Your task to perform on an android device: turn notification dots off Image 0: 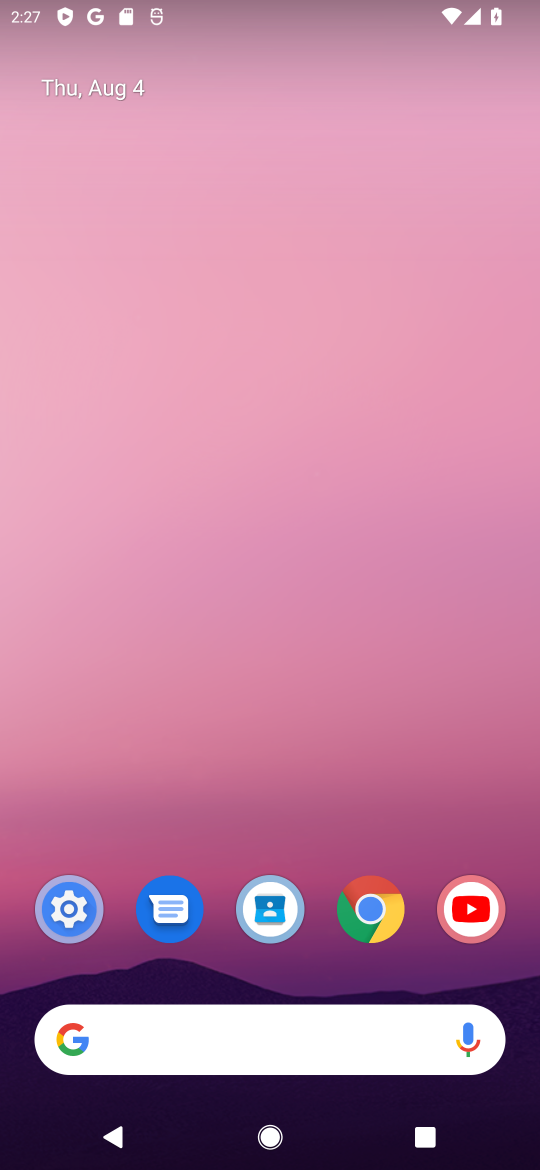
Step 0: drag from (276, 1014) to (459, 332)
Your task to perform on an android device: turn notification dots off Image 1: 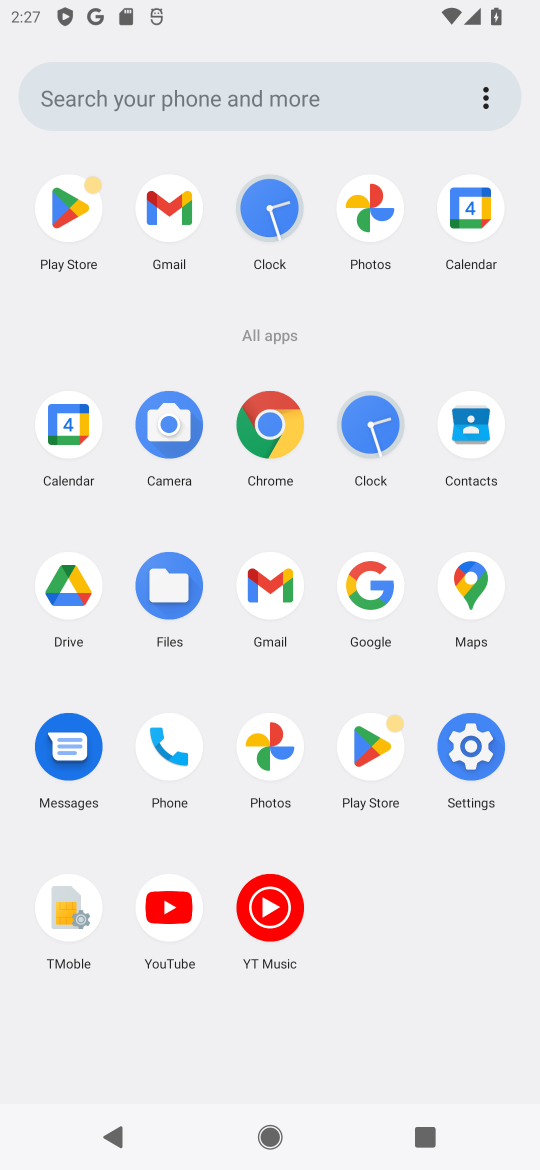
Step 1: click (475, 740)
Your task to perform on an android device: turn notification dots off Image 2: 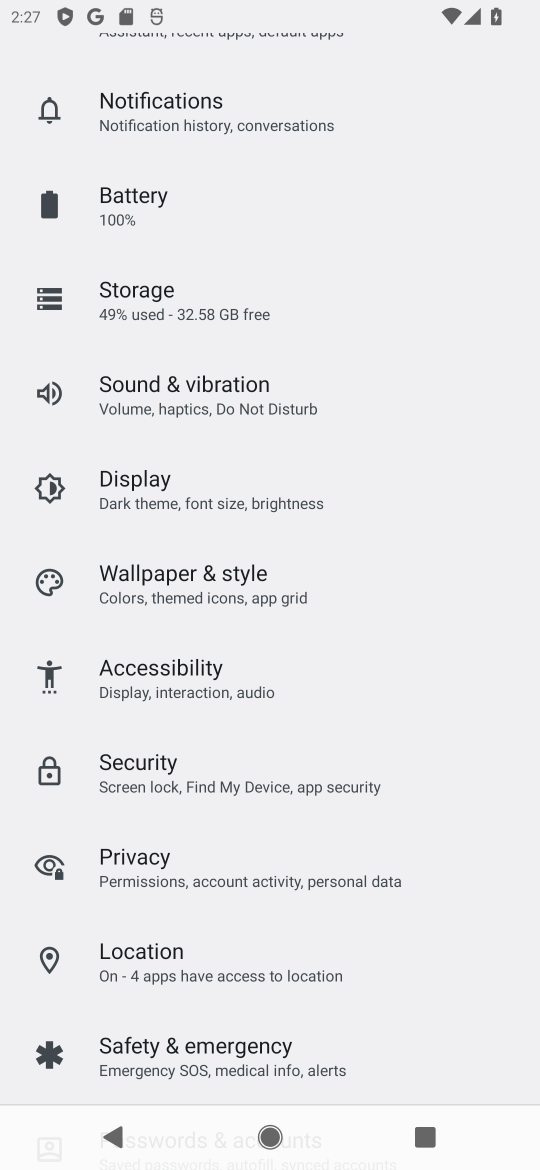
Step 2: drag from (419, 234) to (390, 595)
Your task to perform on an android device: turn notification dots off Image 3: 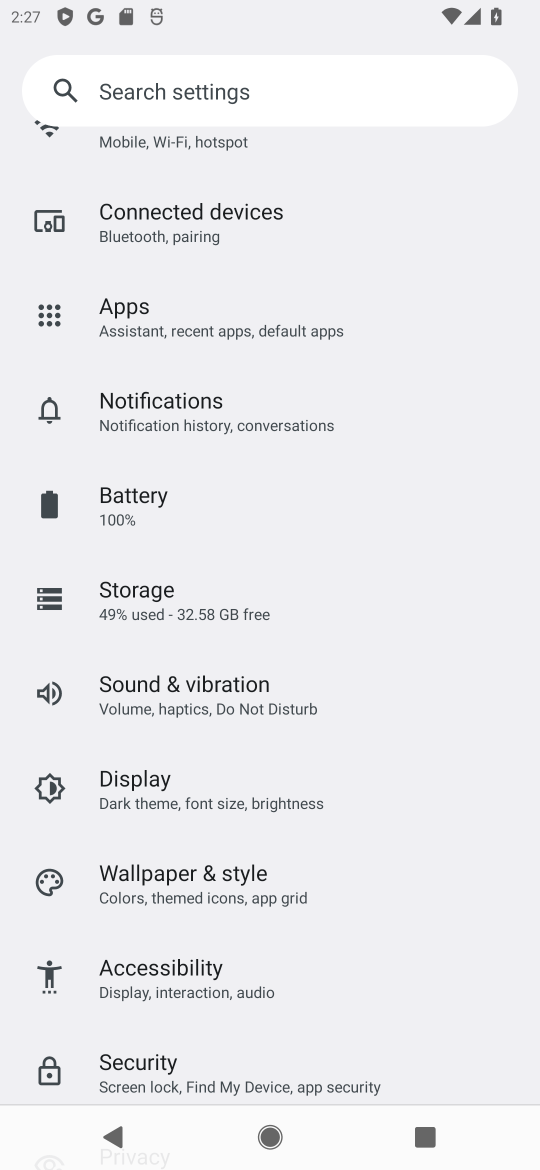
Step 3: click (176, 408)
Your task to perform on an android device: turn notification dots off Image 4: 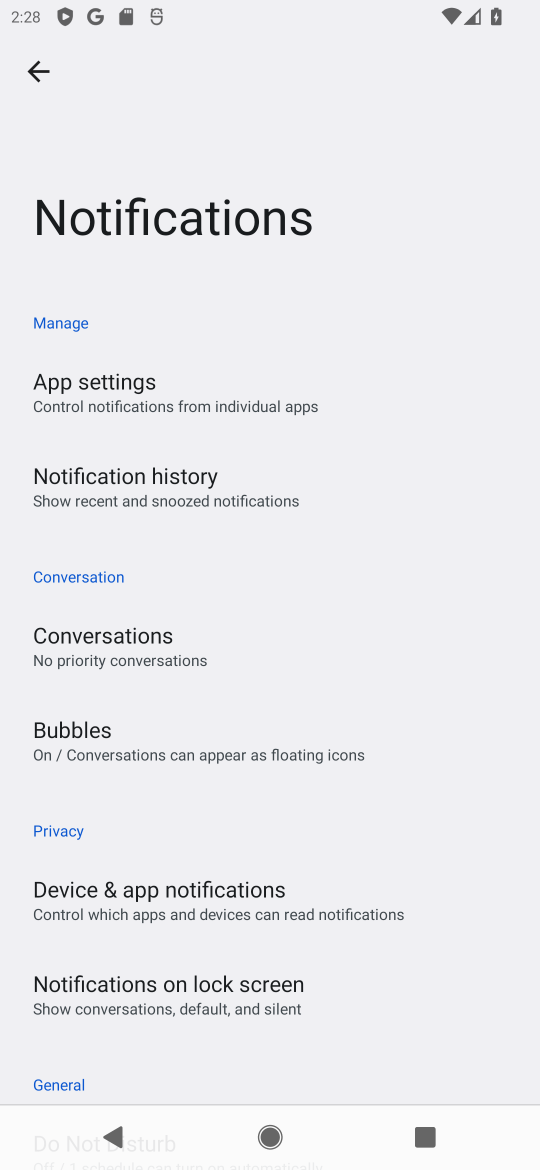
Step 4: drag from (365, 944) to (459, 615)
Your task to perform on an android device: turn notification dots off Image 5: 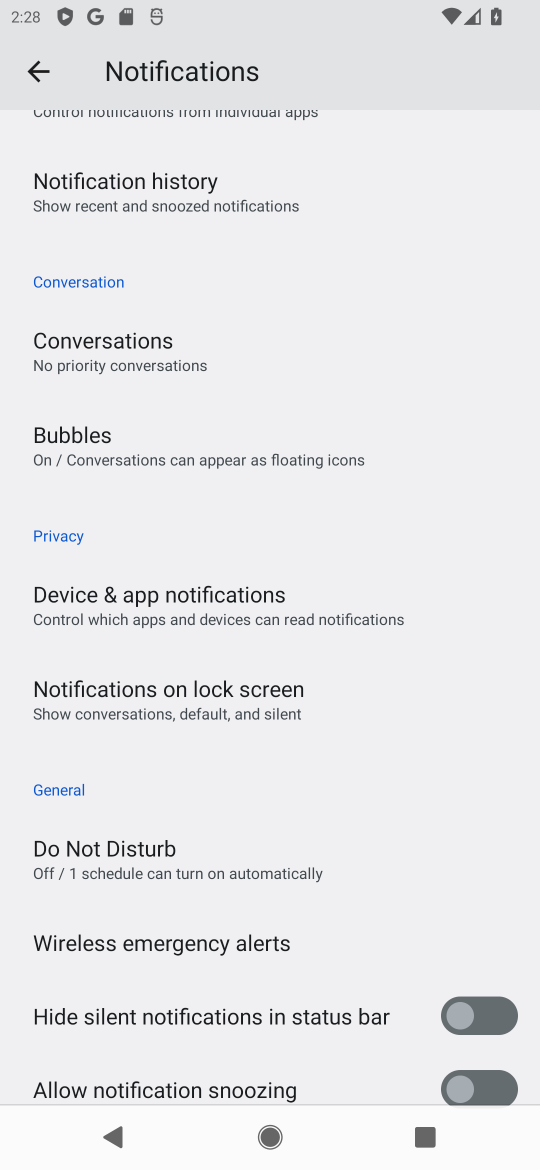
Step 5: drag from (380, 821) to (504, 413)
Your task to perform on an android device: turn notification dots off Image 6: 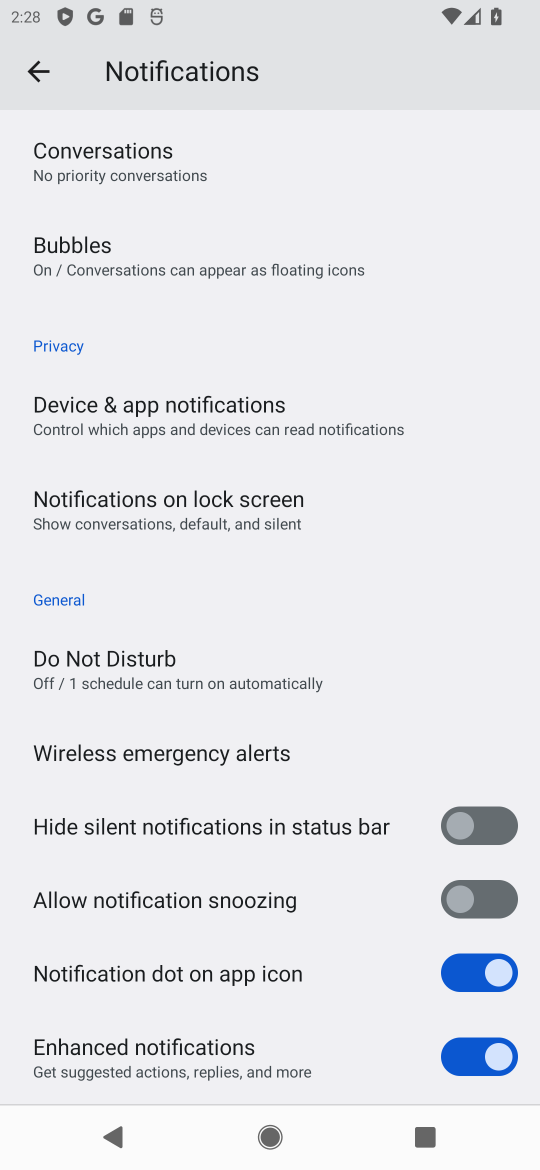
Step 6: click (467, 980)
Your task to perform on an android device: turn notification dots off Image 7: 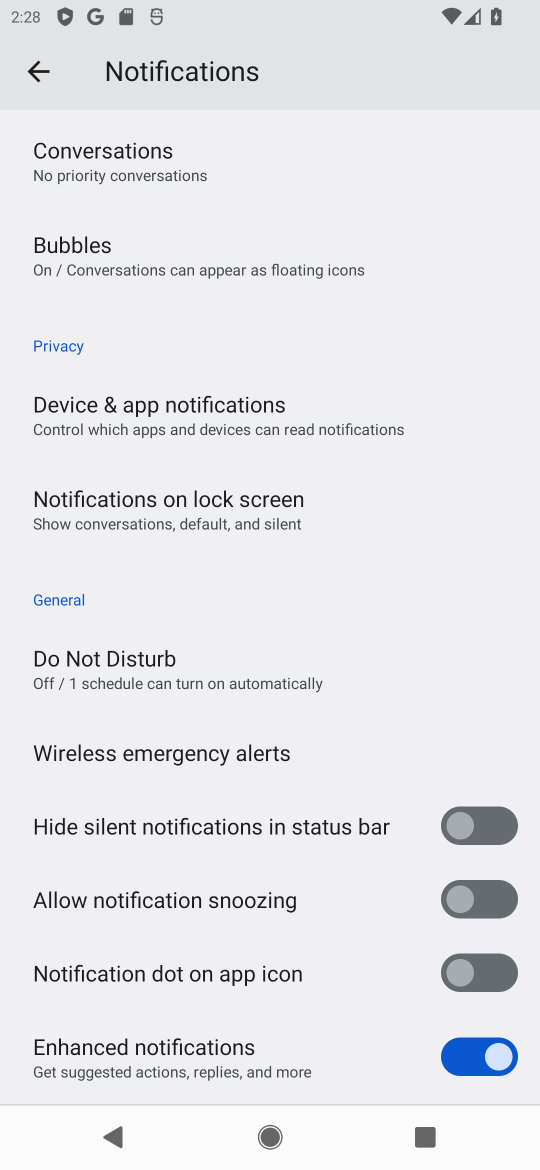
Step 7: task complete